Your task to perform on an android device: set default search engine in the chrome app Image 0: 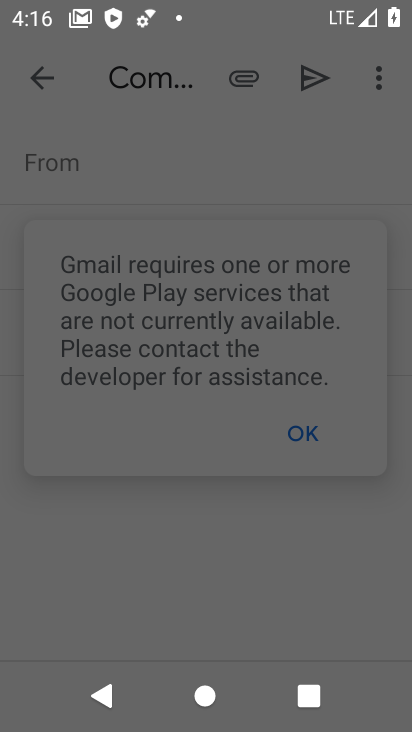
Step 0: click (171, 546)
Your task to perform on an android device: set default search engine in the chrome app Image 1: 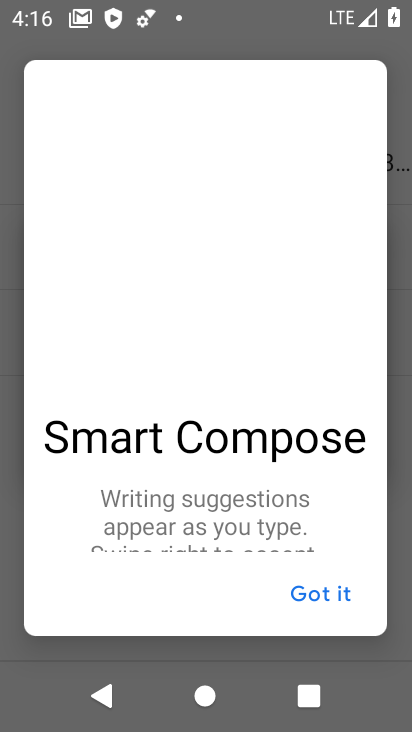
Step 1: press home button
Your task to perform on an android device: set default search engine in the chrome app Image 2: 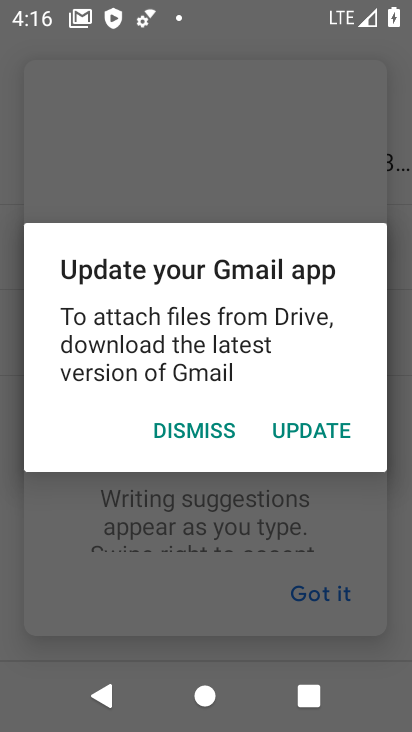
Step 2: click (198, 539)
Your task to perform on an android device: set default search engine in the chrome app Image 3: 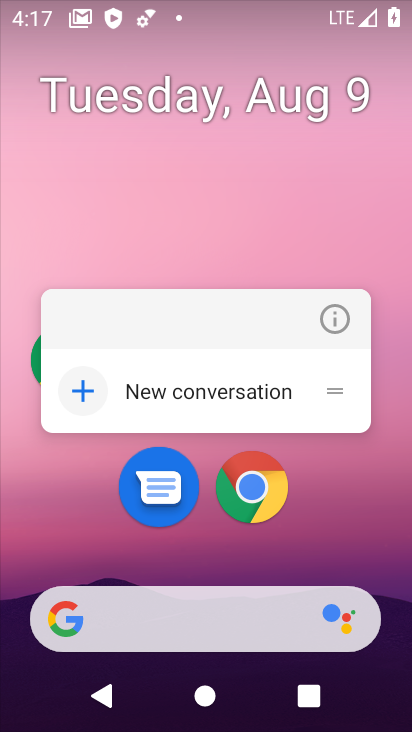
Step 3: press home button
Your task to perform on an android device: set default search engine in the chrome app Image 4: 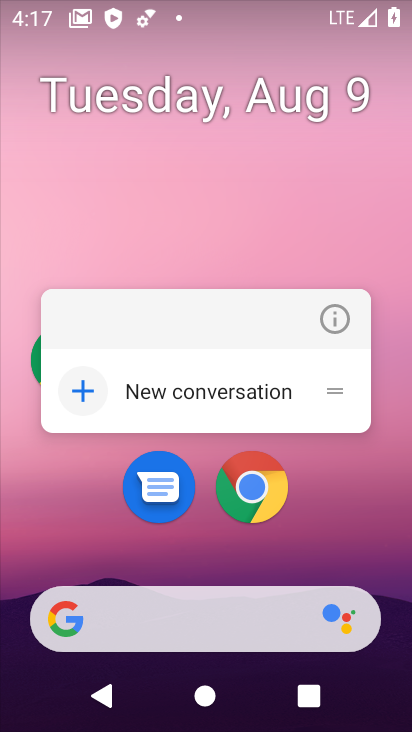
Step 4: click (198, 539)
Your task to perform on an android device: set default search engine in the chrome app Image 5: 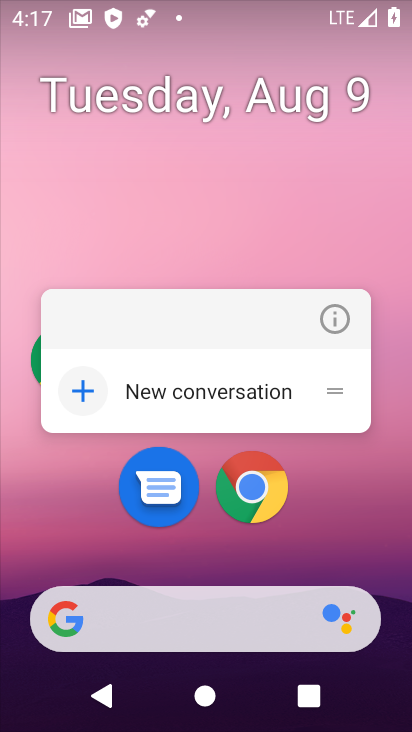
Step 5: press home button
Your task to perform on an android device: set default search engine in the chrome app Image 6: 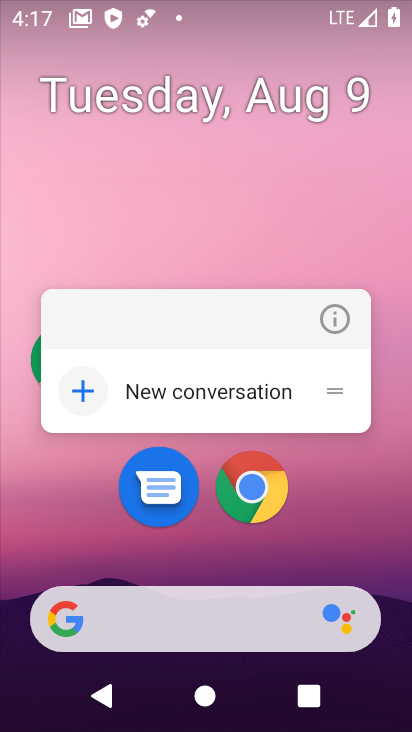
Step 6: drag from (198, 539) to (366, 508)
Your task to perform on an android device: set default search engine in the chrome app Image 7: 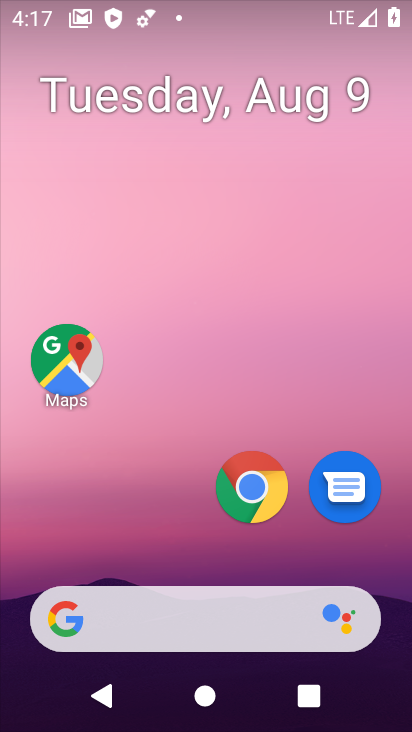
Step 7: click (256, 492)
Your task to perform on an android device: set default search engine in the chrome app Image 8: 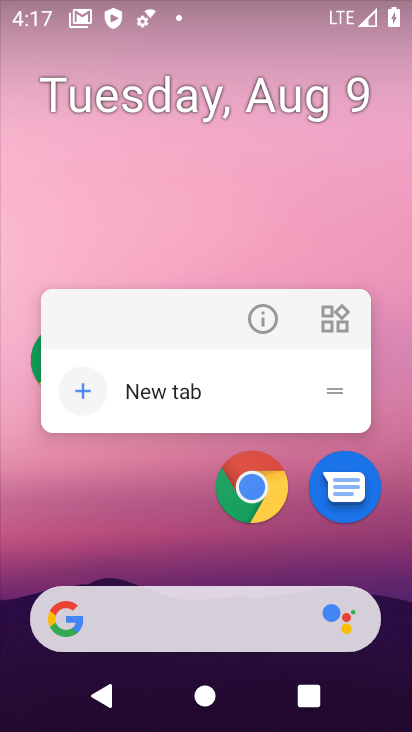
Step 8: click (256, 492)
Your task to perform on an android device: set default search engine in the chrome app Image 9: 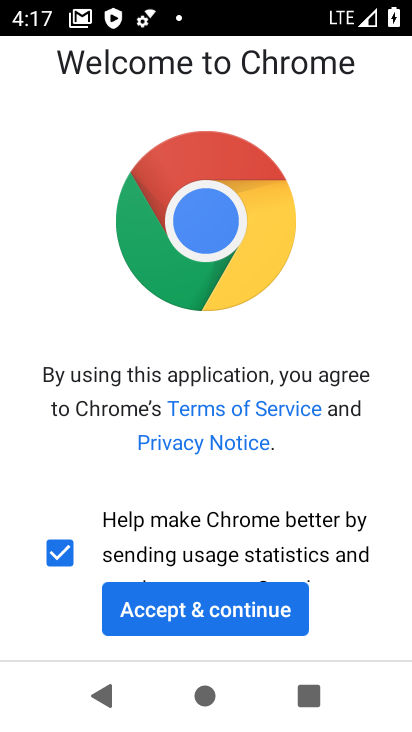
Step 9: click (192, 620)
Your task to perform on an android device: set default search engine in the chrome app Image 10: 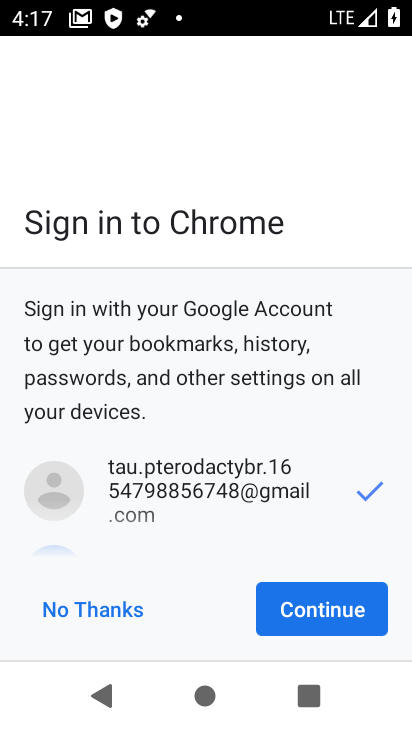
Step 10: click (300, 607)
Your task to perform on an android device: set default search engine in the chrome app Image 11: 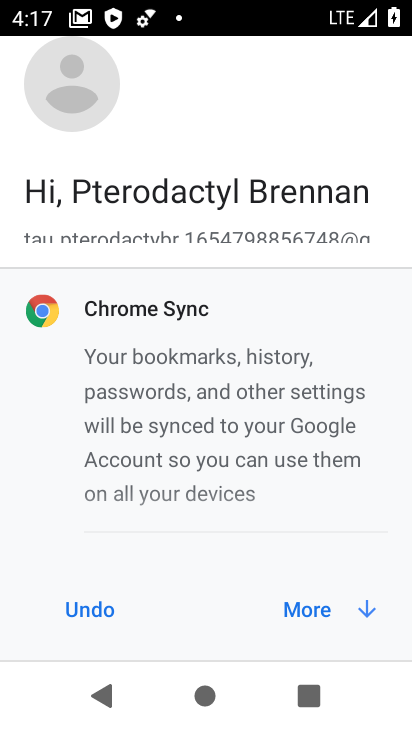
Step 11: click (300, 607)
Your task to perform on an android device: set default search engine in the chrome app Image 12: 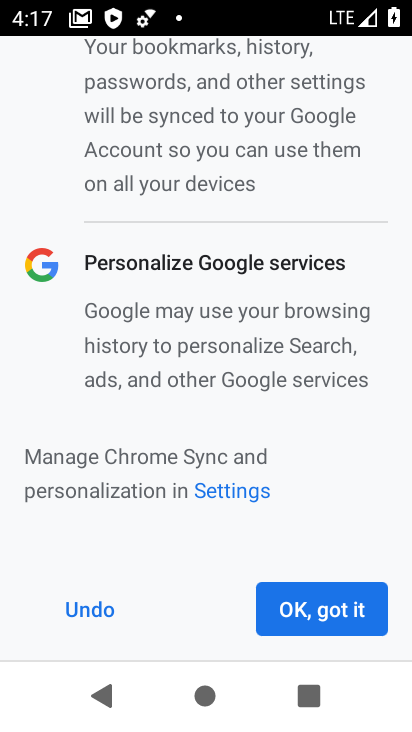
Step 12: click (300, 607)
Your task to perform on an android device: set default search engine in the chrome app Image 13: 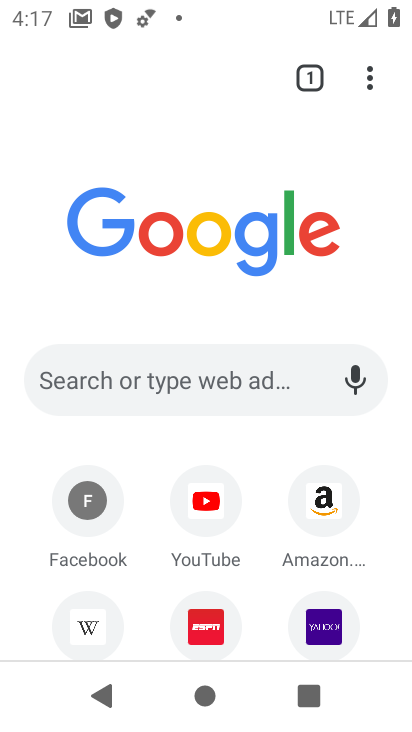
Step 13: click (367, 90)
Your task to perform on an android device: set default search engine in the chrome app Image 14: 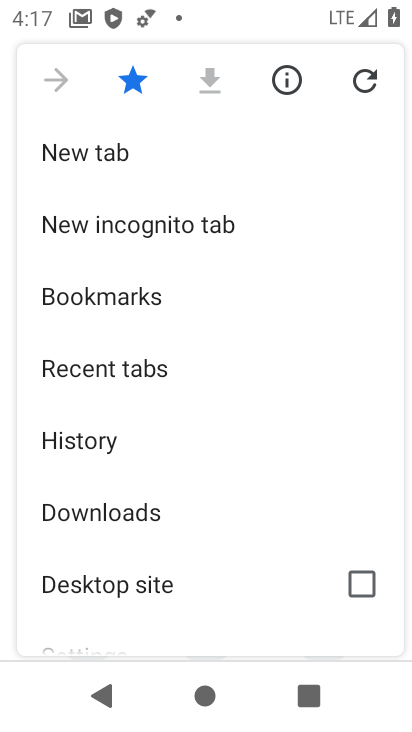
Step 14: drag from (175, 518) to (122, 99)
Your task to perform on an android device: set default search engine in the chrome app Image 15: 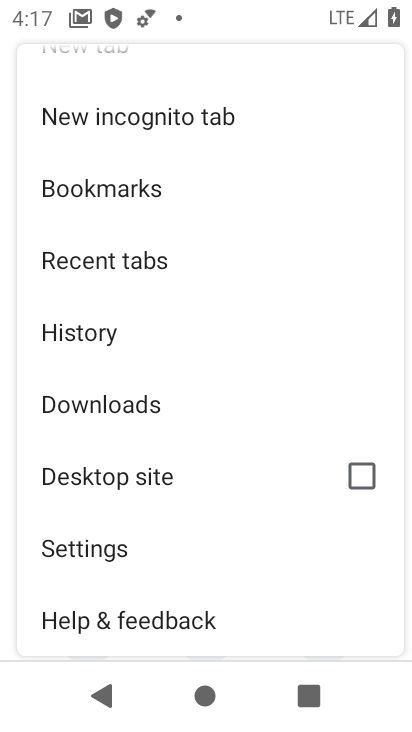
Step 15: click (90, 545)
Your task to perform on an android device: set default search engine in the chrome app Image 16: 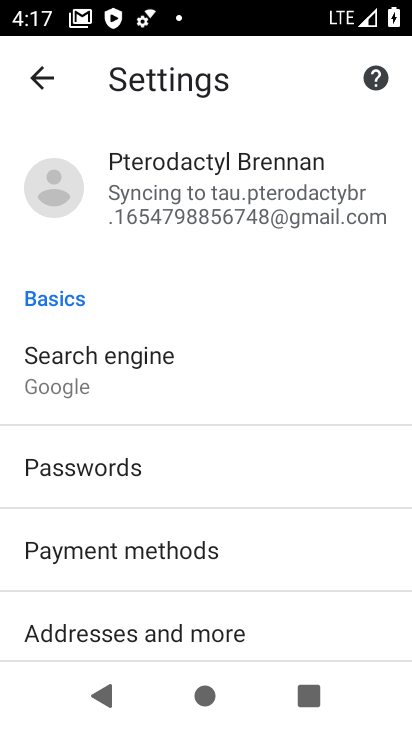
Step 16: click (117, 380)
Your task to perform on an android device: set default search engine in the chrome app Image 17: 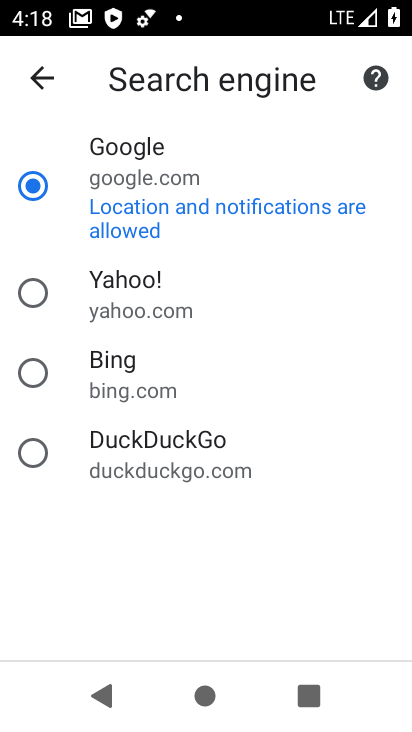
Step 17: click (39, 294)
Your task to perform on an android device: set default search engine in the chrome app Image 18: 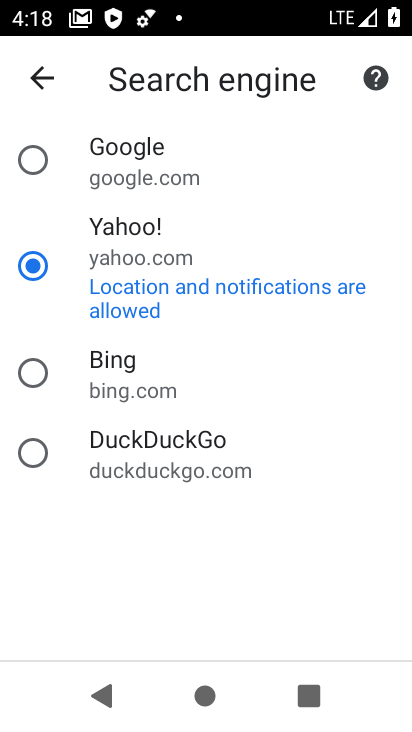
Step 18: task complete